Your task to perform on an android device: turn on priority inbox in the gmail app Image 0: 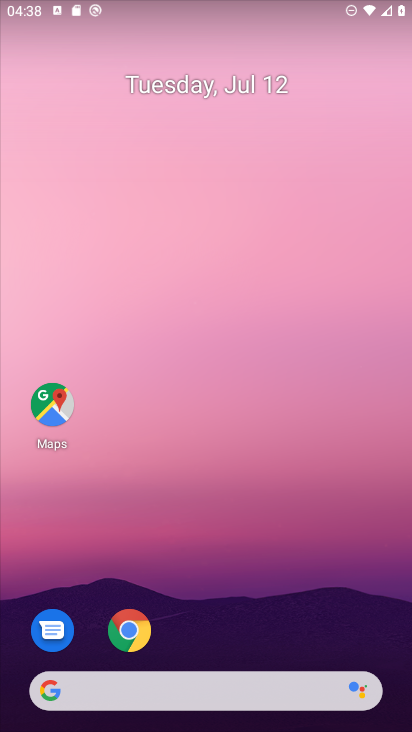
Step 0: drag from (368, 630) to (329, 64)
Your task to perform on an android device: turn on priority inbox in the gmail app Image 1: 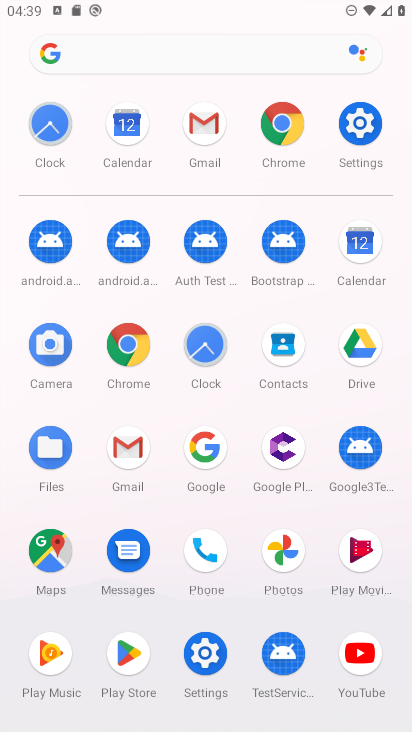
Step 1: click (123, 446)
Your task to perform on an android device: turn on priority inbox in the gmail app Image 2: 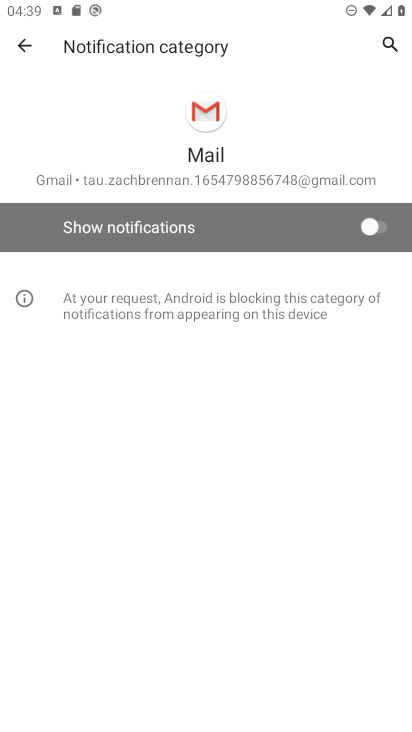
Step 2: press back button
Your task to perform on an android device: turn on priority inbox in the gmail app Image 3: 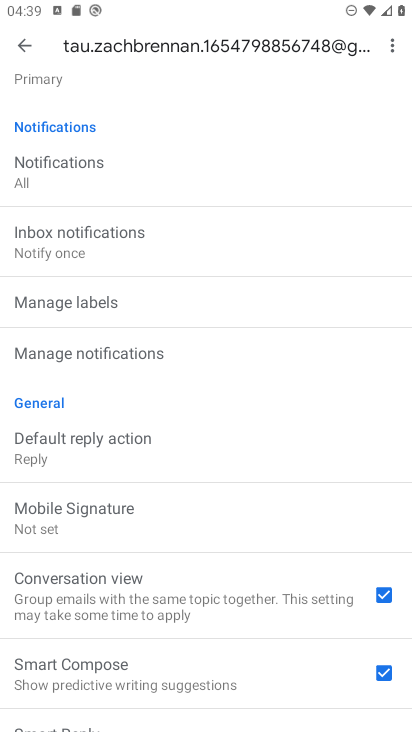
Step 3: drag from (184, 152) to (184, 388)
Your task to perform on an android device: turn on priority inbox in the gmail app Image 4: 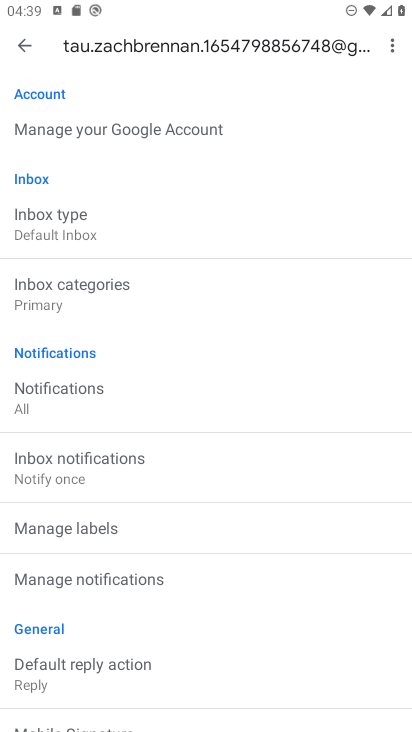
Step 4: click (35, 218)
Your task to perform on an android device: turn on priority inbox in the gmail app Image 5: 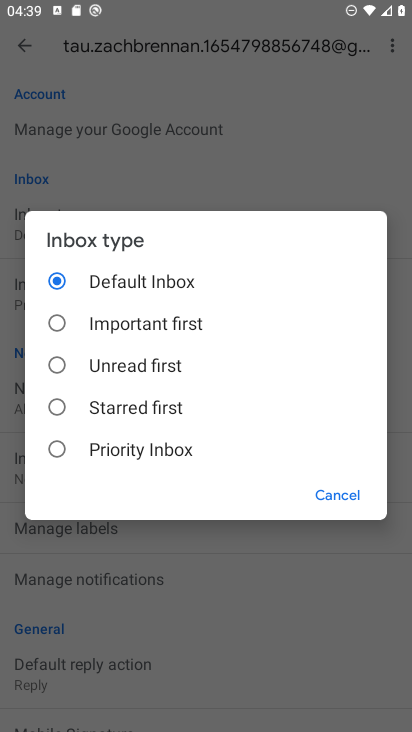
Step 5: click (55, 446)
Your task to perform on an android device: turn on priority inbox in the gmail app Image 6: 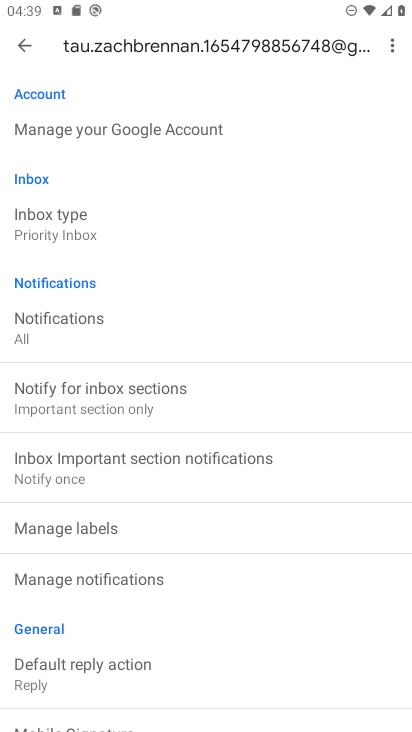
Step 6: task complete